Your task to perform on an android device: Show the shopping cart on ebay. Image 0: 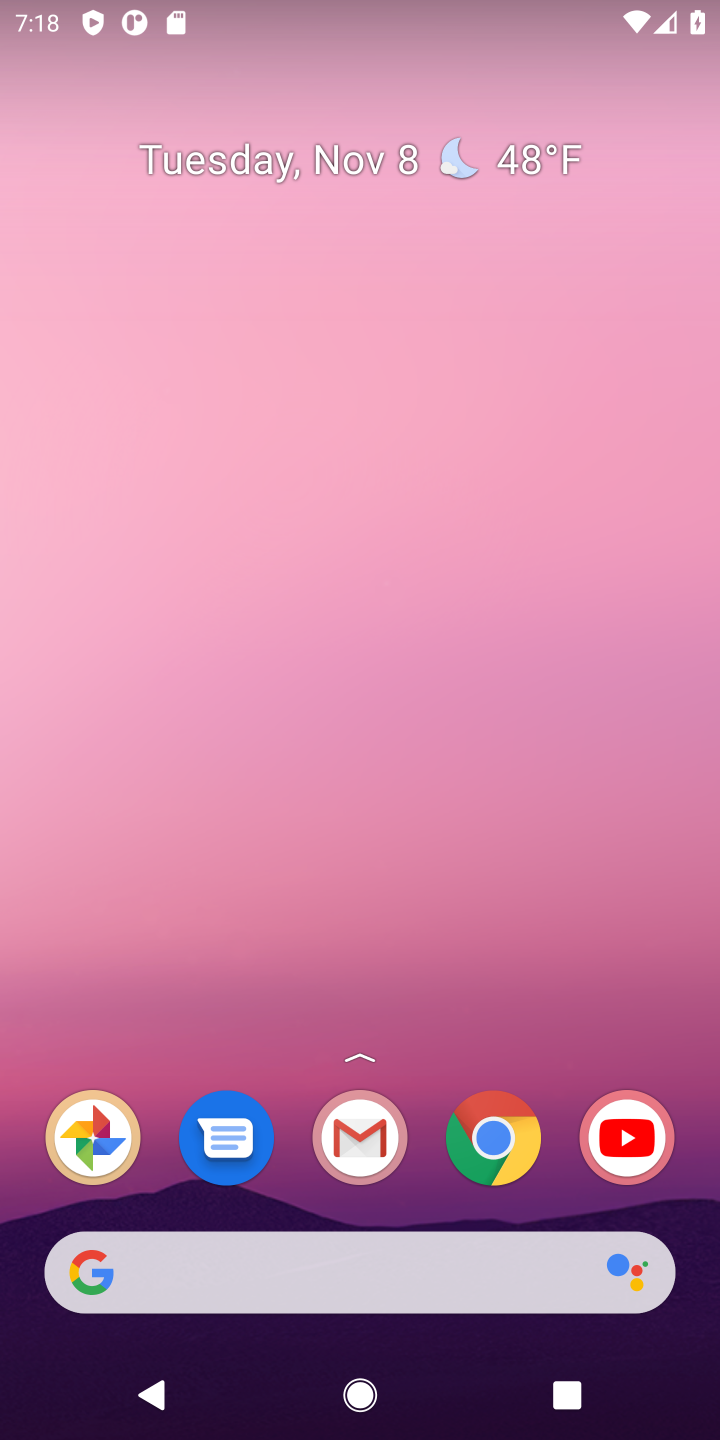
Step 0: click (491, 1143)
Your task to perform on an android device: Show the shopping cart on ebay. Image 1: 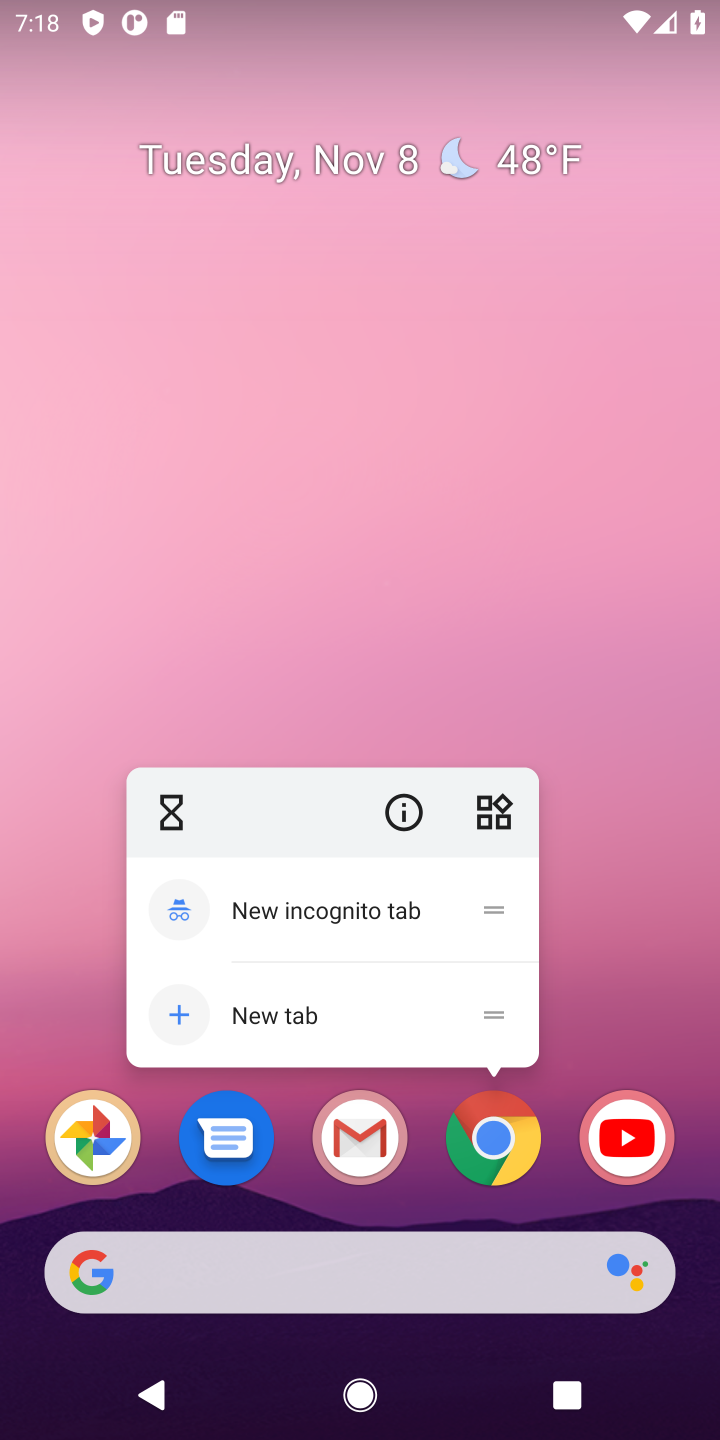
Step 1: click (491, 1146)
Your task to perform on an android device: Show the shopping cart on ebay. Image 2: 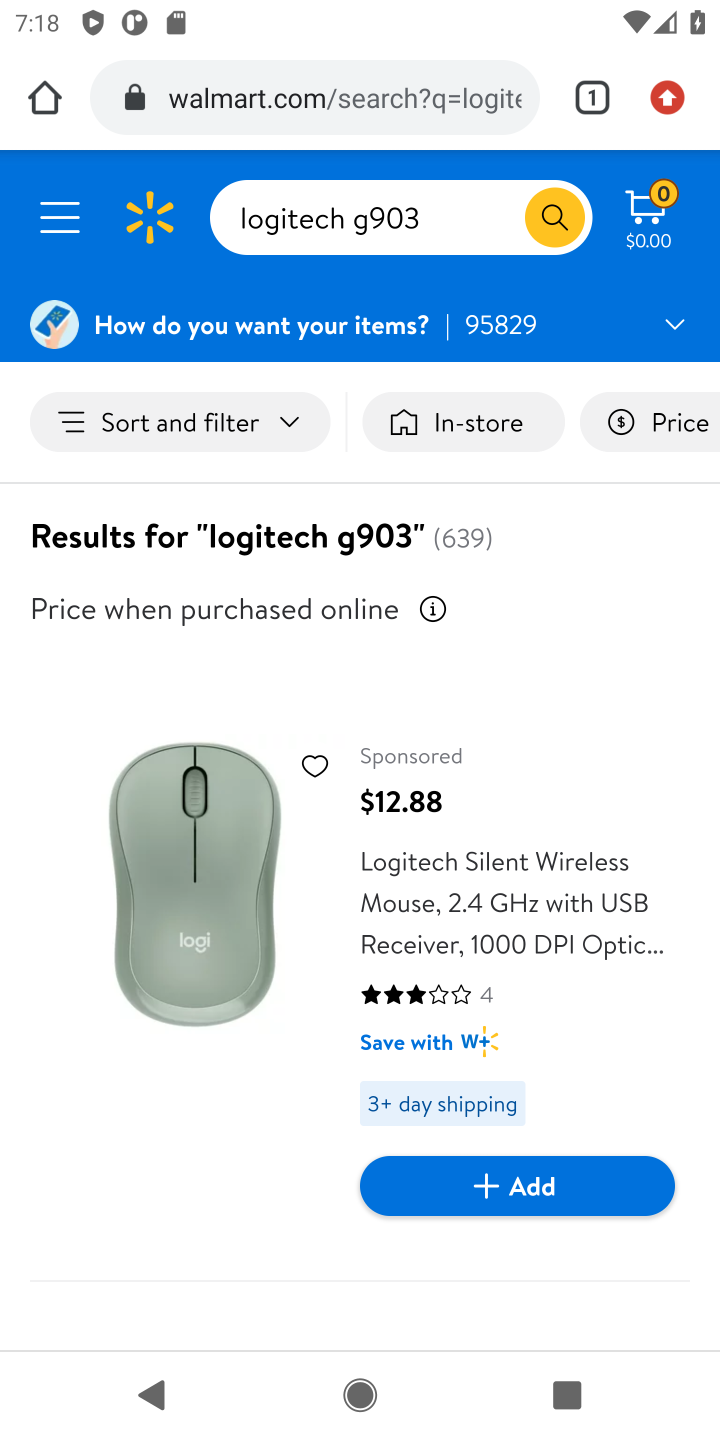
Step 2: click (359, 87)
Your task to perform on an android device: Show the shopping cart on ebay. Image 3: 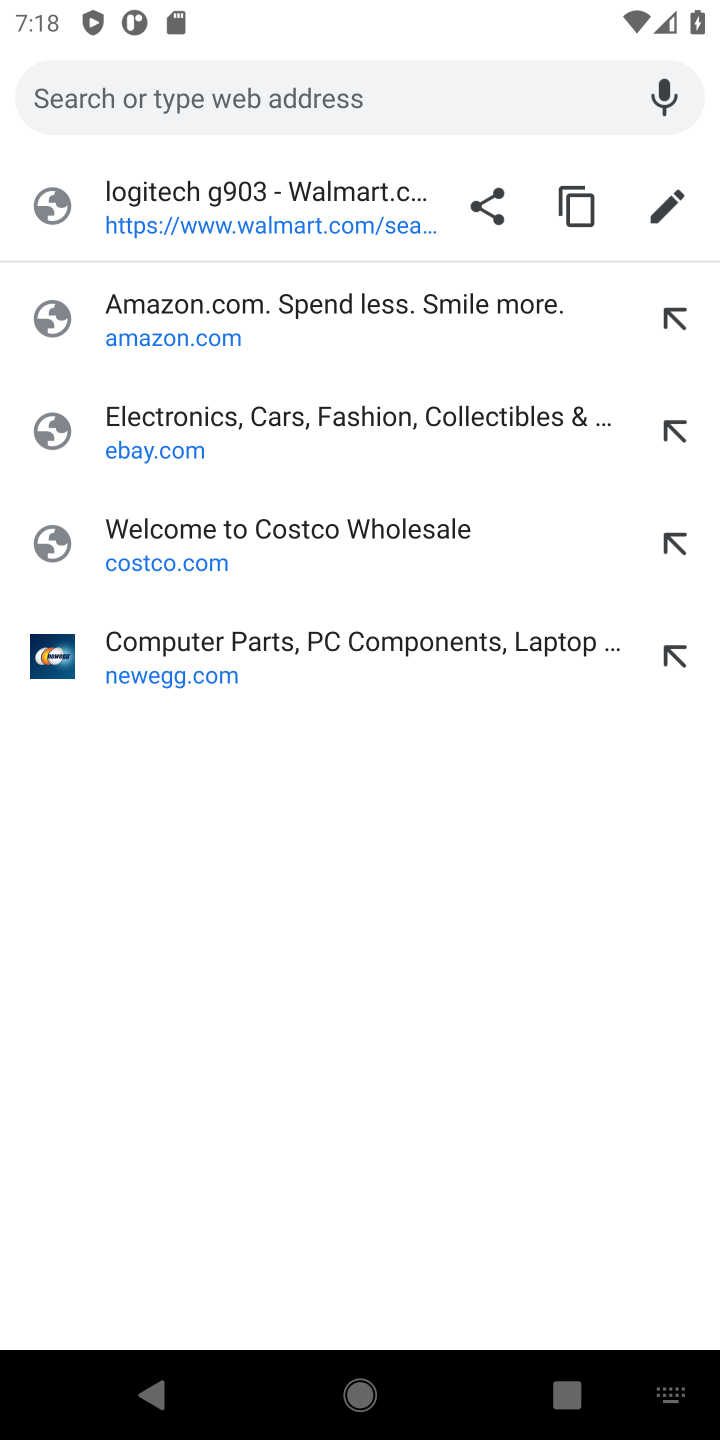
Step 3: click (171, 448)
Your task to perform on an android device: Show the shopping cart on ebay. Image 4: 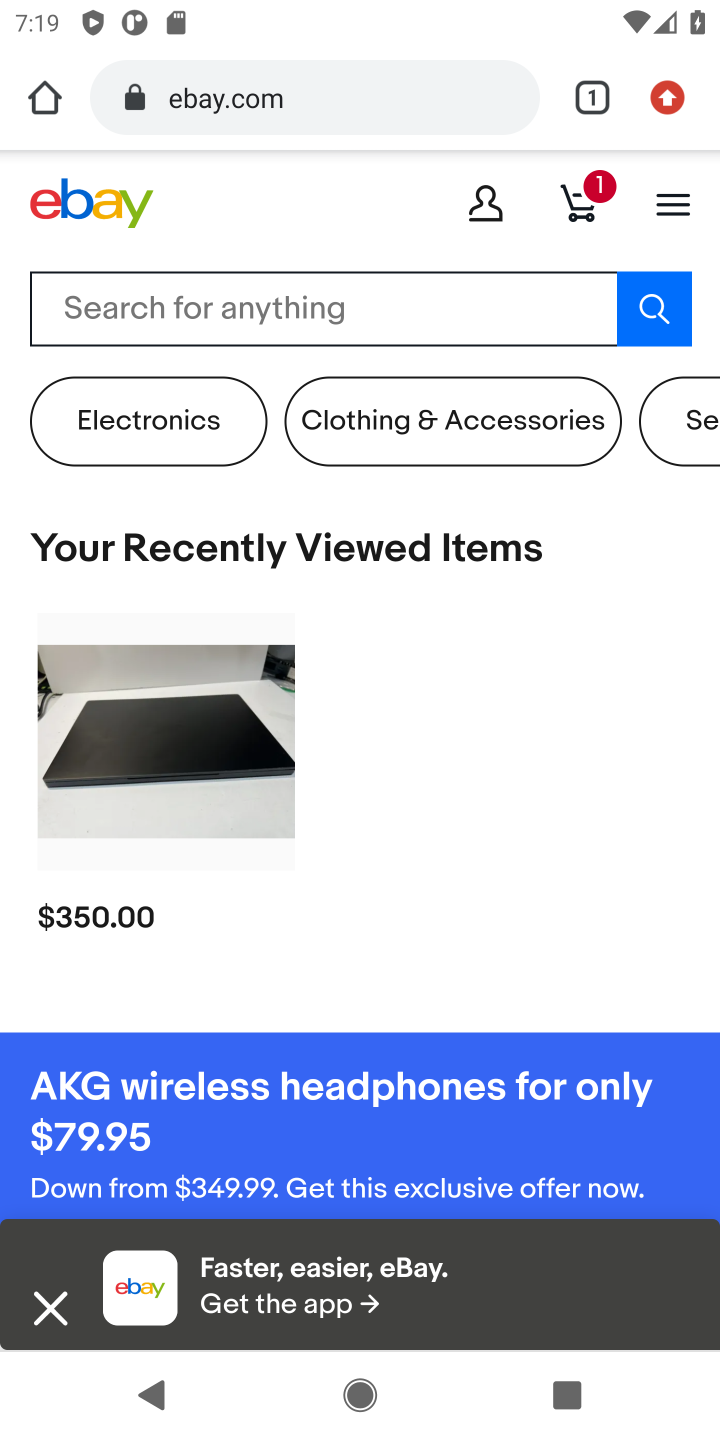
Step 4: click (589, 185)
Your task to perform on an android device: Show the shopping cart on ebay. Image 5: 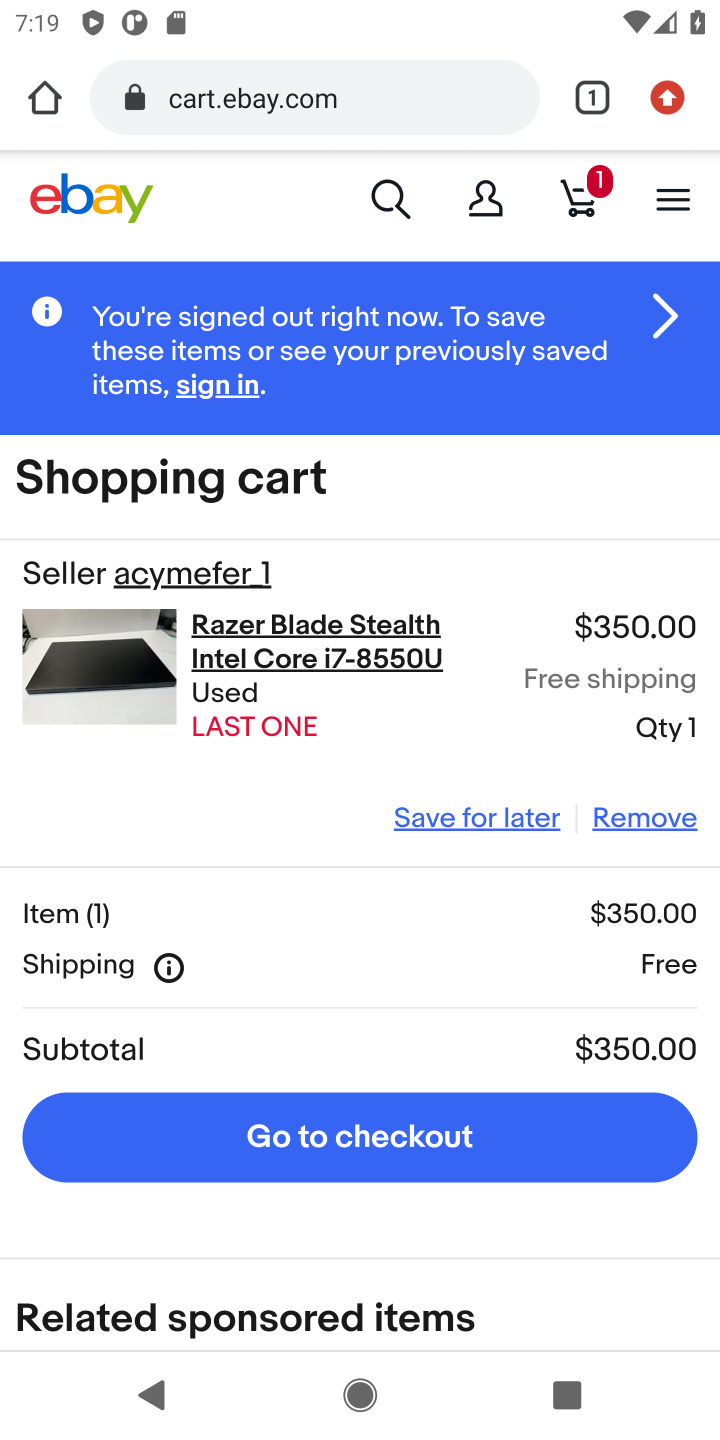
Step 5: task complete